Your task to perform on an android device: turn notification dots off Image 0: 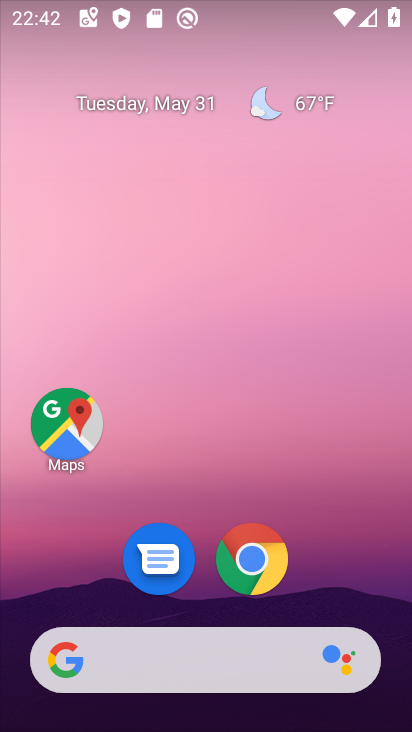
Step 0: drag from (335, 536) to (341, 41)
Your task to perform on an android device: turn notification dots off Image 1: 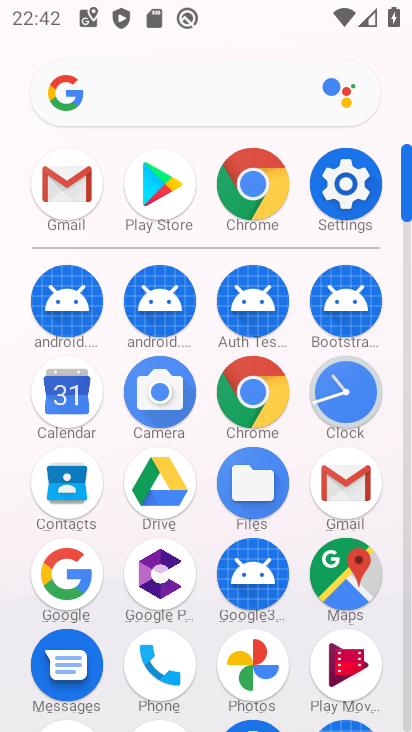
Step 1: click (343, 184)
Your task to perform on an android device: turn notification dots off Image 2: 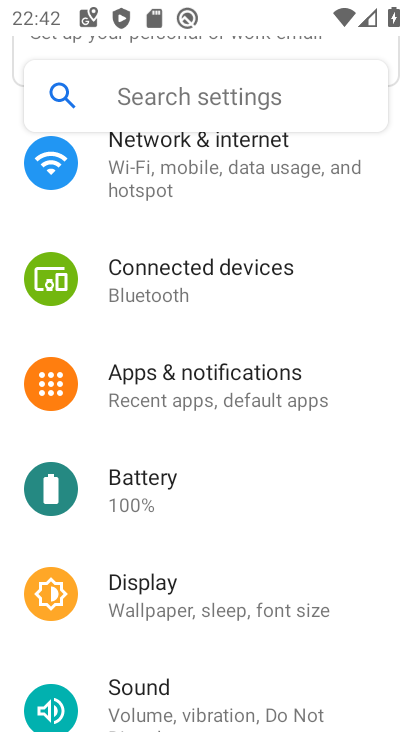
Step 2: click (252, 390)
Your task to perform on an android device: turn notification dots off Image 3: 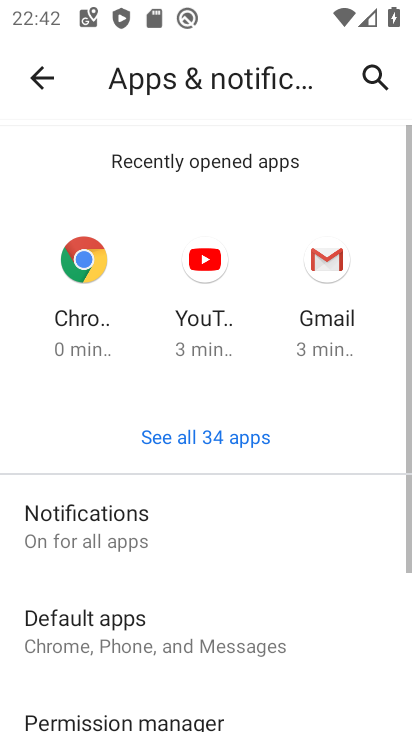
Step 3: click (237, 532)
Your task to perform on an android device: turn notification dots off Image 4: 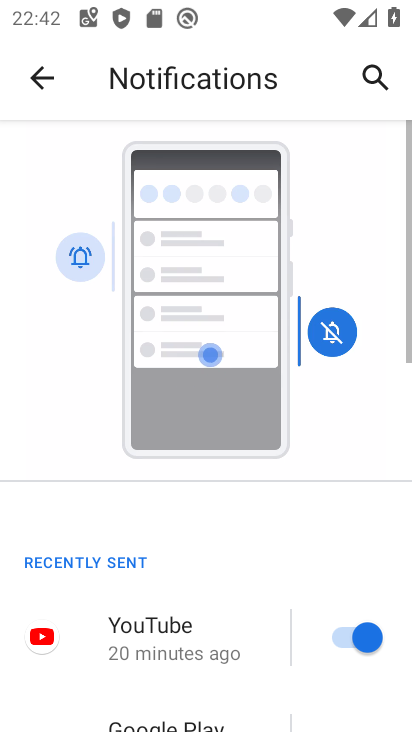
Step 4: drag from (274, 521) to (273, 18)
Your task to perform on an android device: turn notification dots off Image 5: 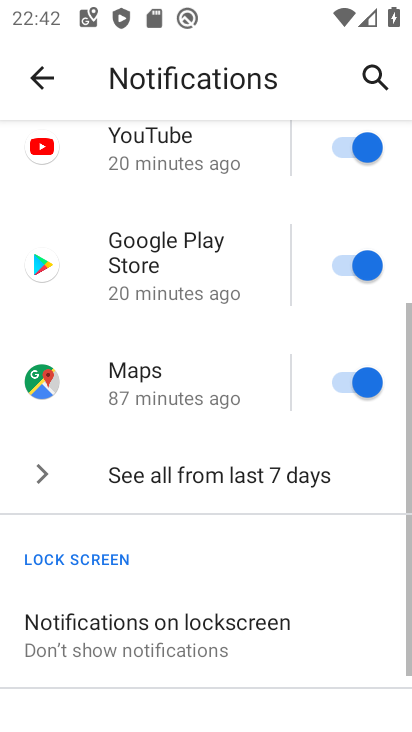
Step 5: drag from (302, 621) to (229, 176)
Your task to perform on an android device: turn notification dots off Image 6: 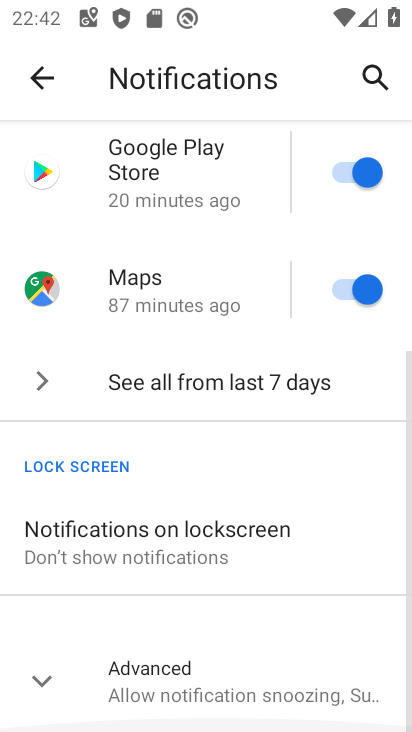
Step 6: click (184, 698)
Your task to perform on an android device: turn notification dots off Image 7: 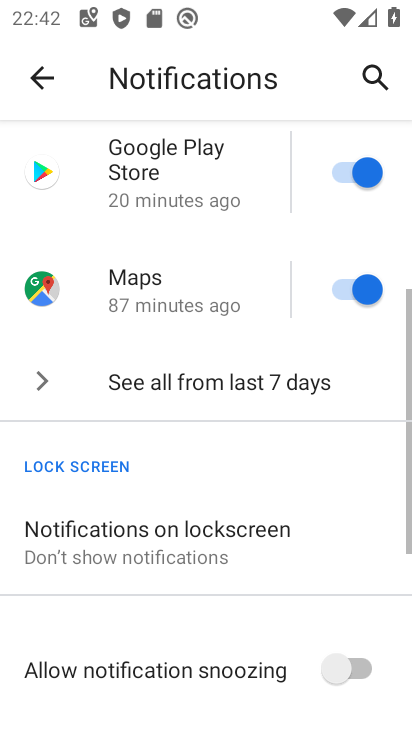
Step 7: task complete